Your task to perform on an android device: Search for good Italian restaurants Image 0: 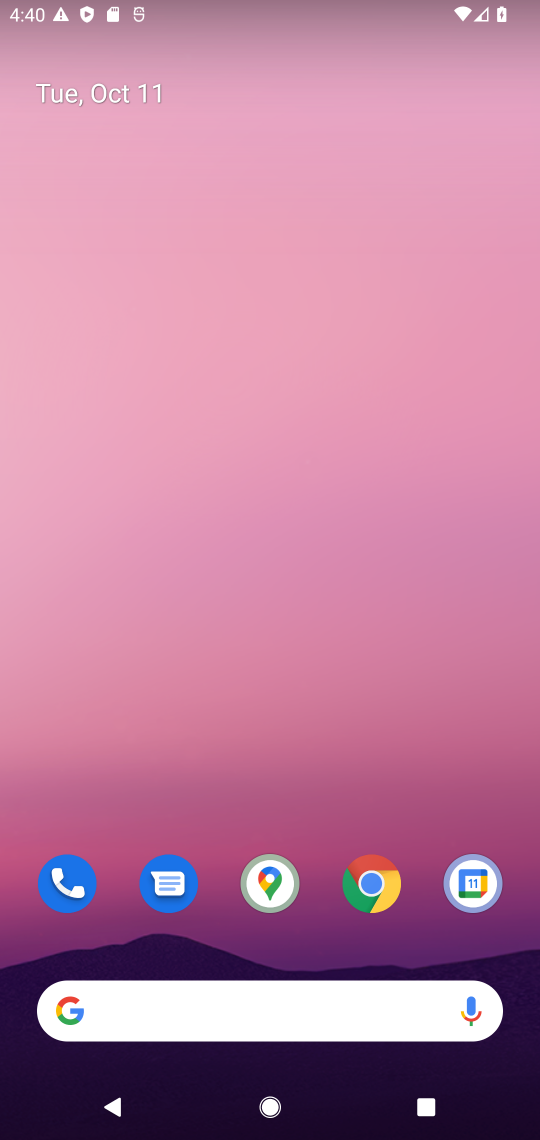
Step 0: drag from (331, 957) to (408, 221)
Your task to perform on an android device: Search for good Italian restaurants Image 1: 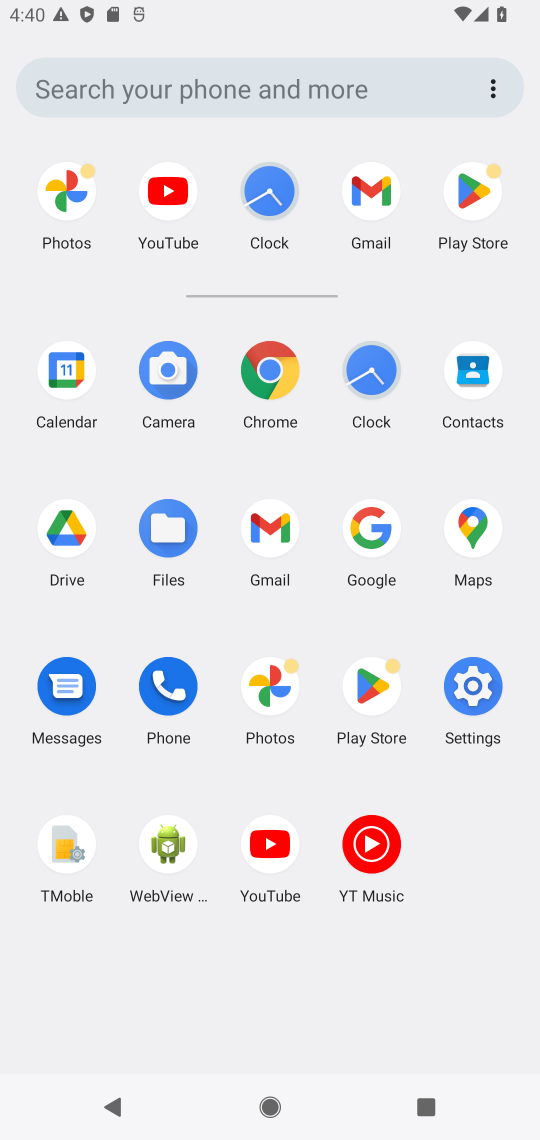
Step 1: click (277, 369)
Your task to perform on an android device: Search for good Italian restaurants Image 2: 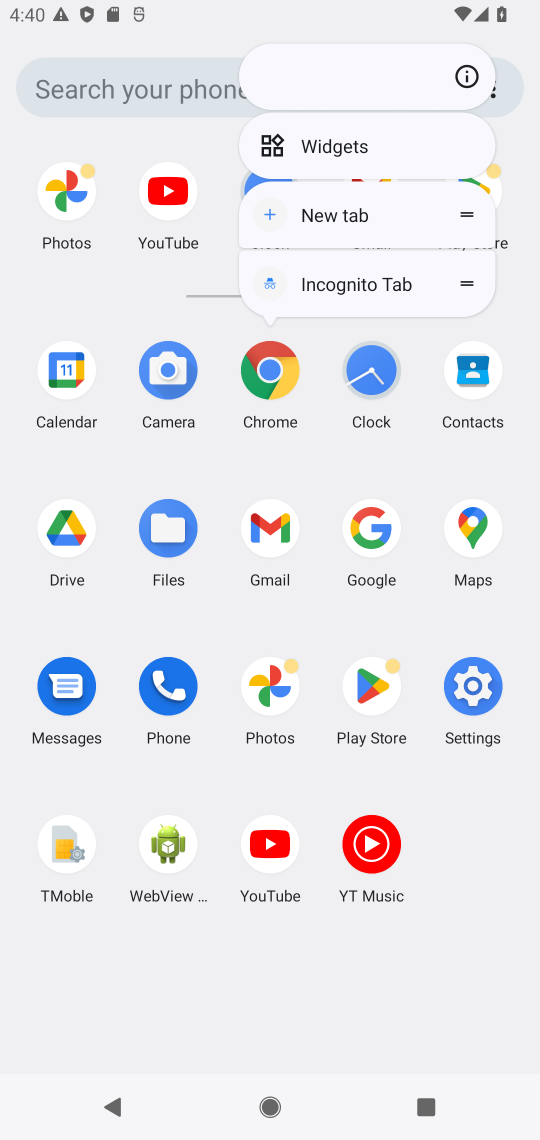
Step 2: click (270, 378)
Your task to perform on an android device: Search for good Italian restaurants Image 3: 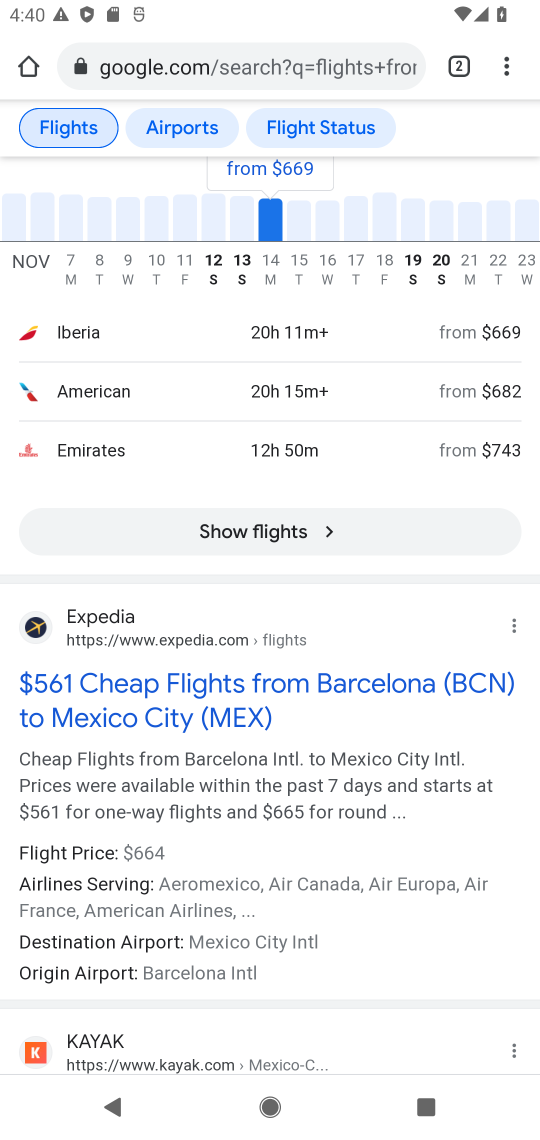
Step 3: click (290, 63)
Your task to perform on an android device: Search for good Italian restaurants Image 4: 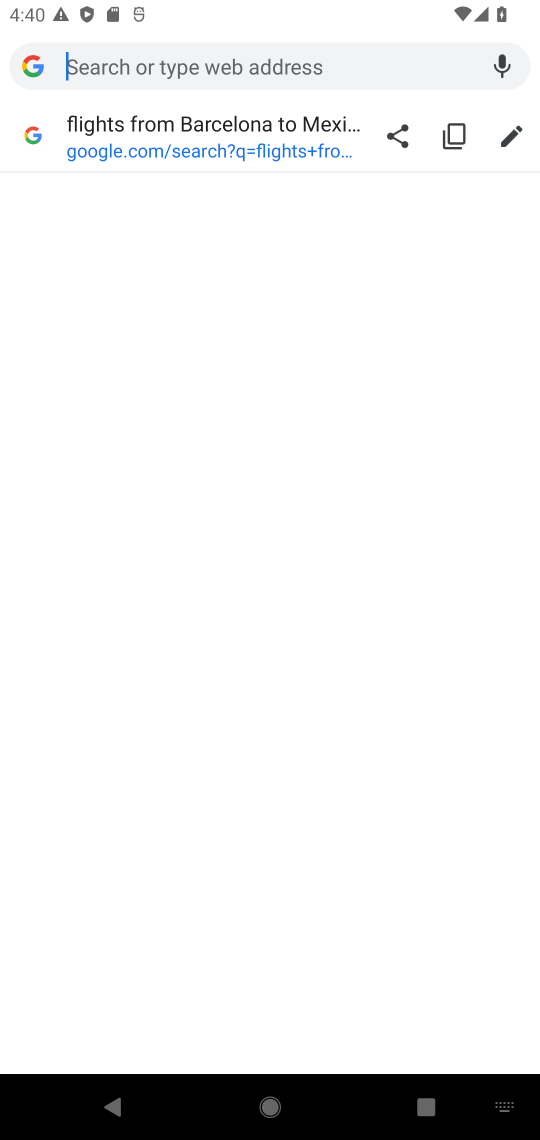
Step 4: type "good Italian restaurants"
Your task to perform on an android device: Search for good Italian restaurants Image 5: 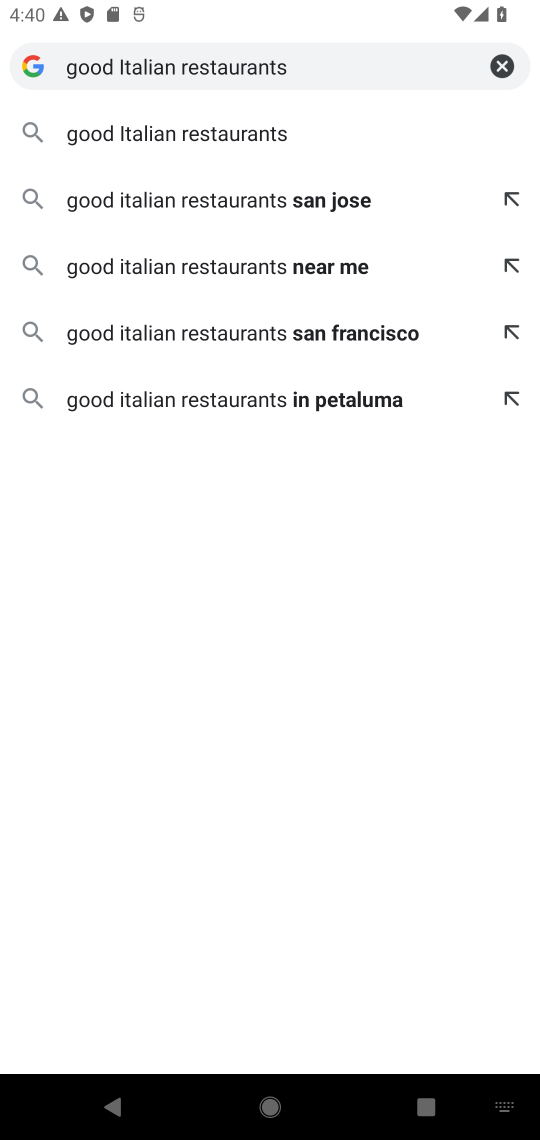
Step 5: press enter
Your task to perform on an android device: Search for good Italian restaurants Image 6: 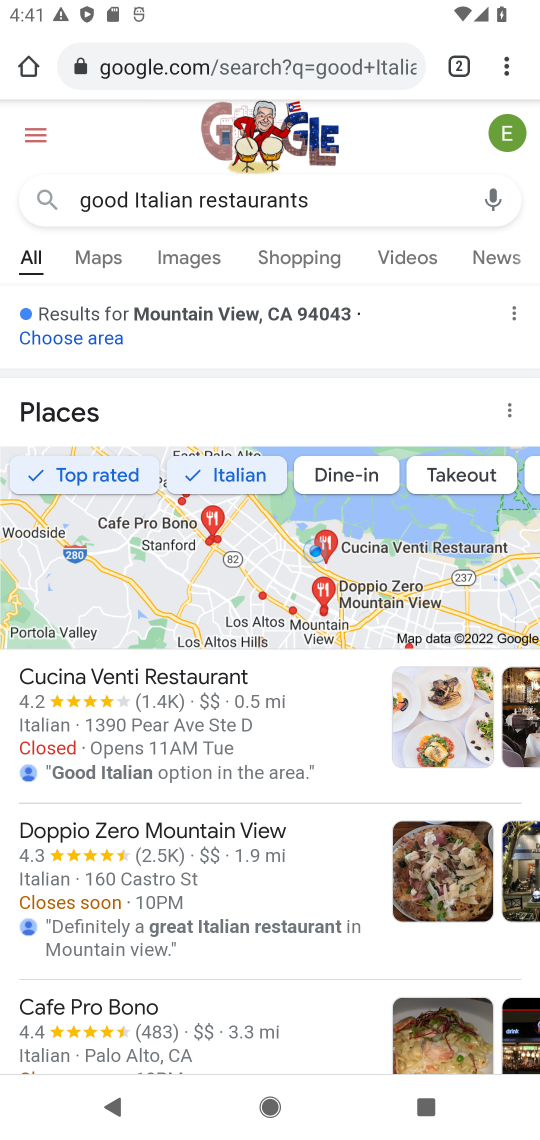
Step 6: task complete